Your task to perform on an android device: Go to Google maps Image 0: 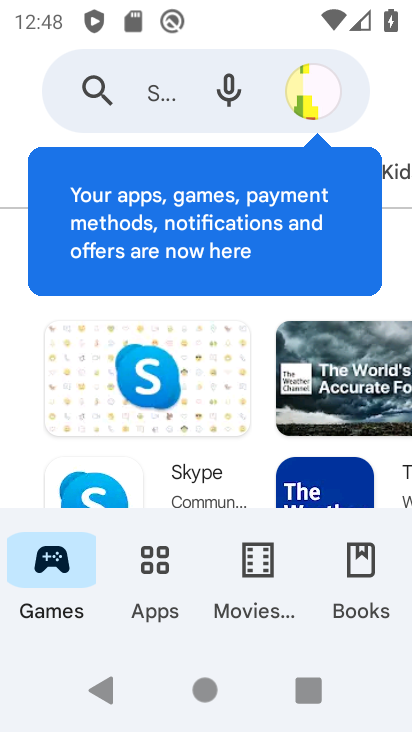
Step 0: press home button
Your task to perform on an android device: Go to Google maps Image 1: 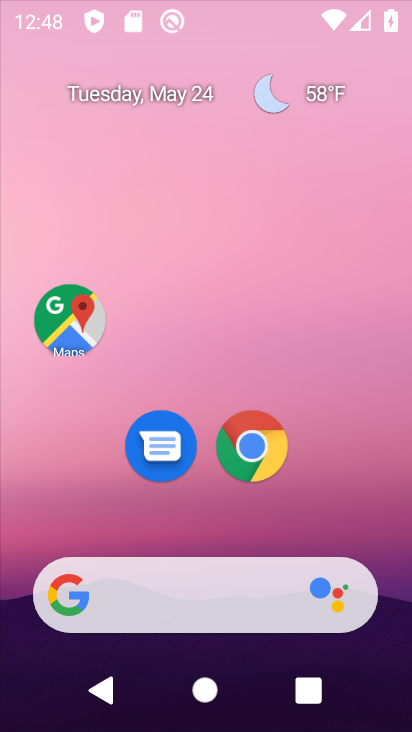
Step 1: drag from (260, 633) to (267, 113)
Your task to perform on an android device: Go to Google maps Image 2: 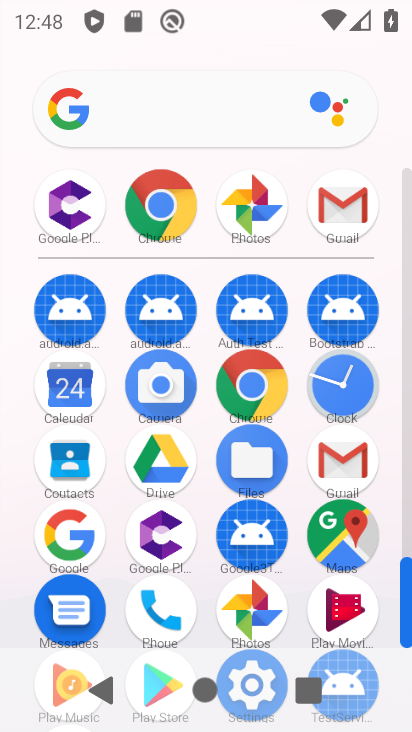
Step 2: click (349, 549)
Your task to perform on an android device: Go to Google maps Image 3: 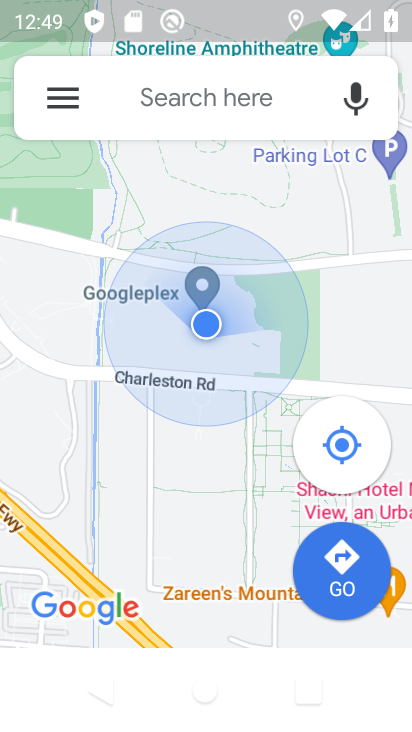
Step 3: click (241, 110)
Your task to perform on an android device: Go to Google maps Image 4: 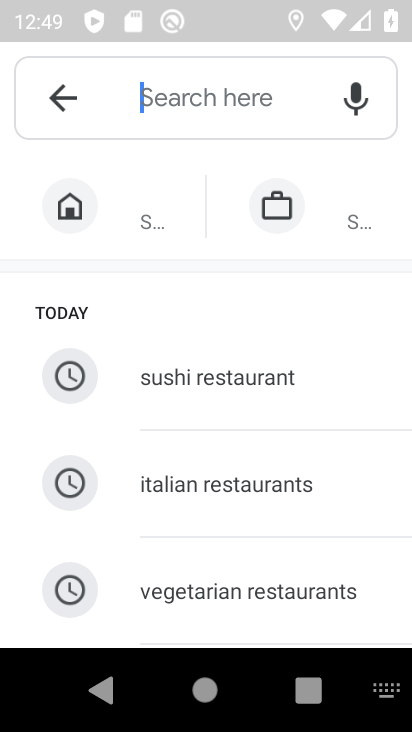
Step 4: click (60, 102)
Your task to perform on an android device: Go to Google maps Image 5: 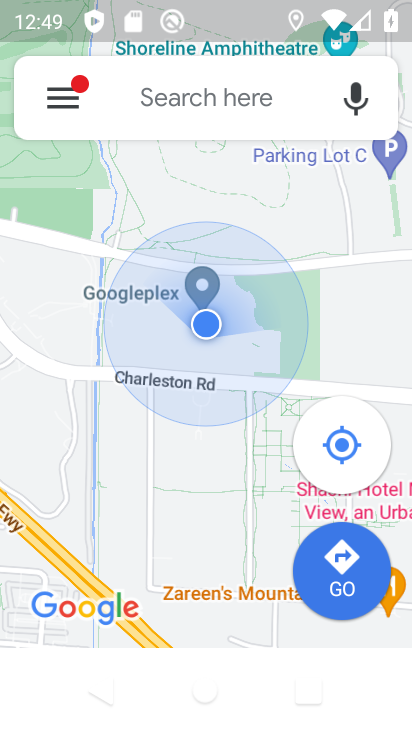
Step 5: task complete